Your task to perform on an android device: empty trash in google photos Image 0: 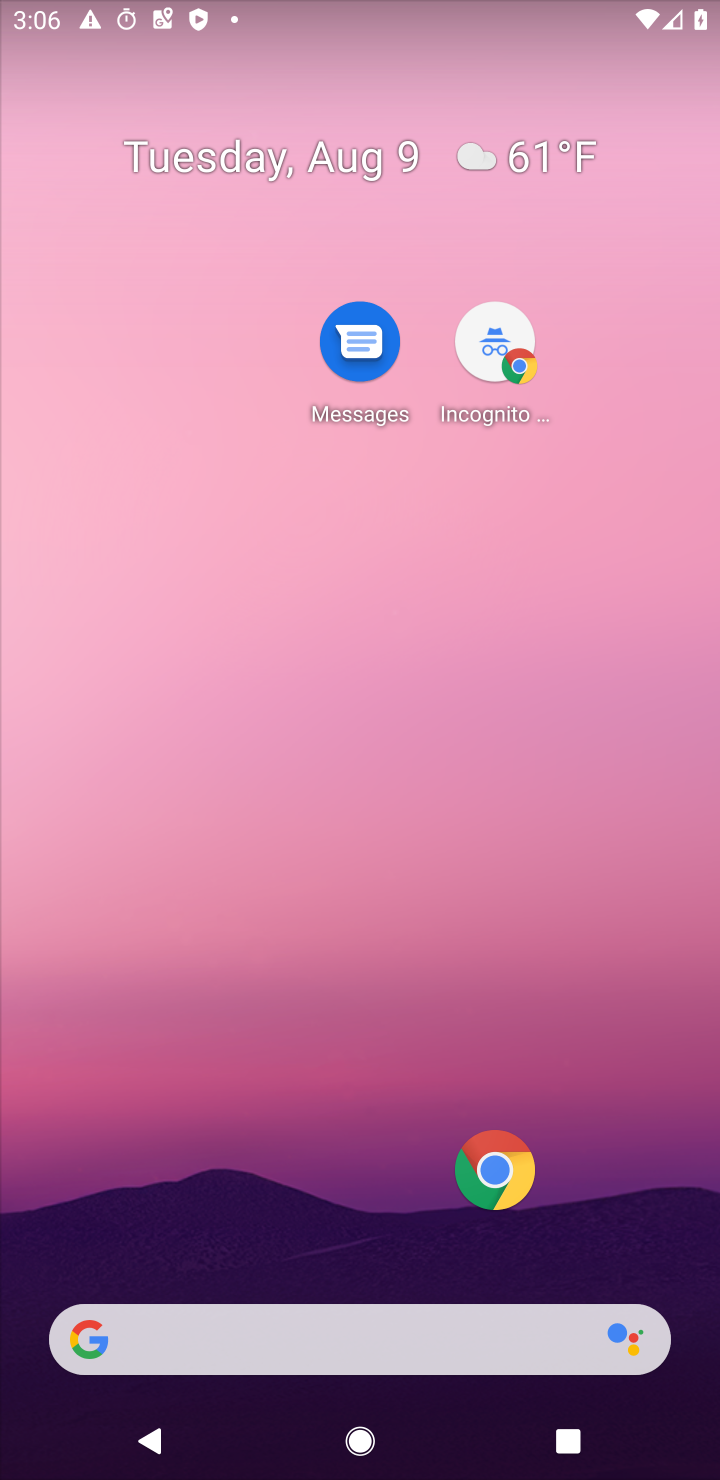
Step 0: drag from (262, 1146) to (698, 624)
Your task to perform on an android device: empty trash in google photos Image 1: 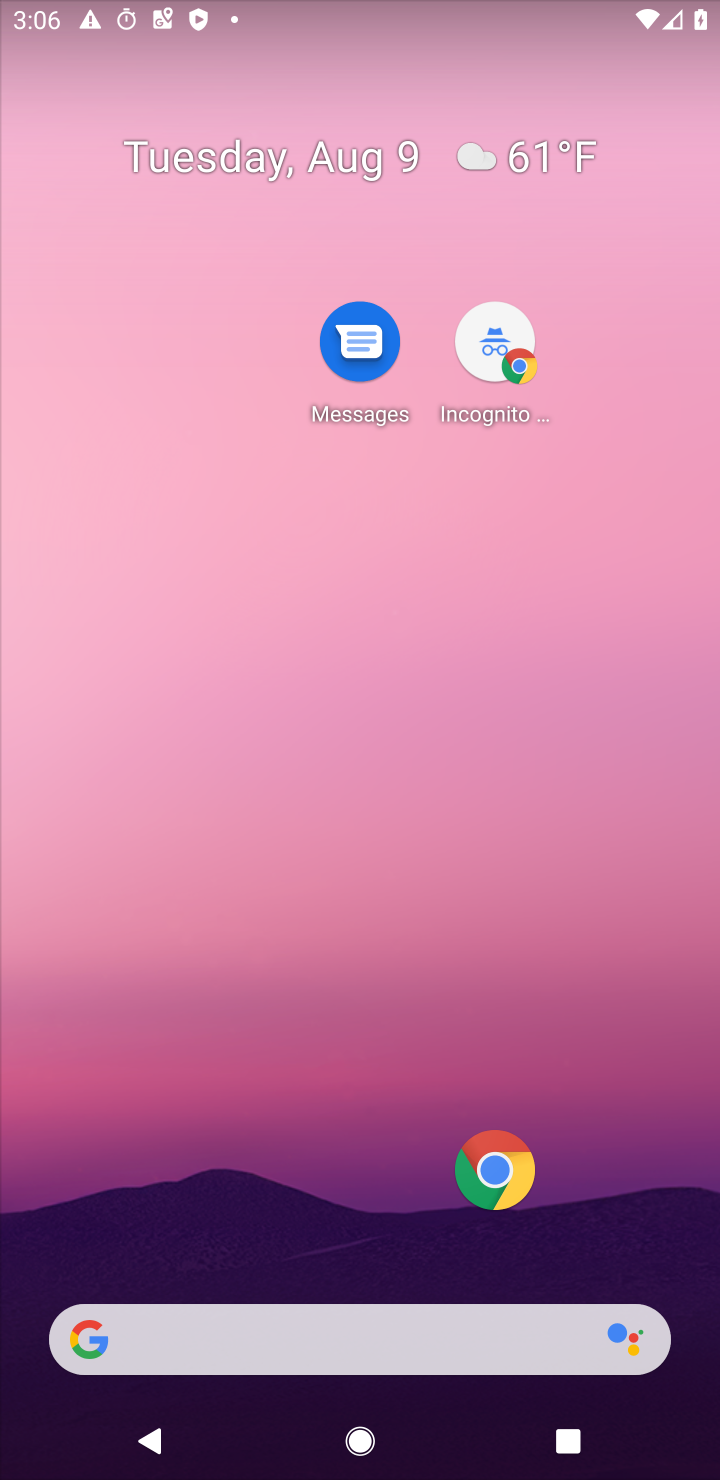
Step 1: drag from (351, 1023) to (646, 13)
Your task to perform on an android device: empty trash in google photos Image 2: 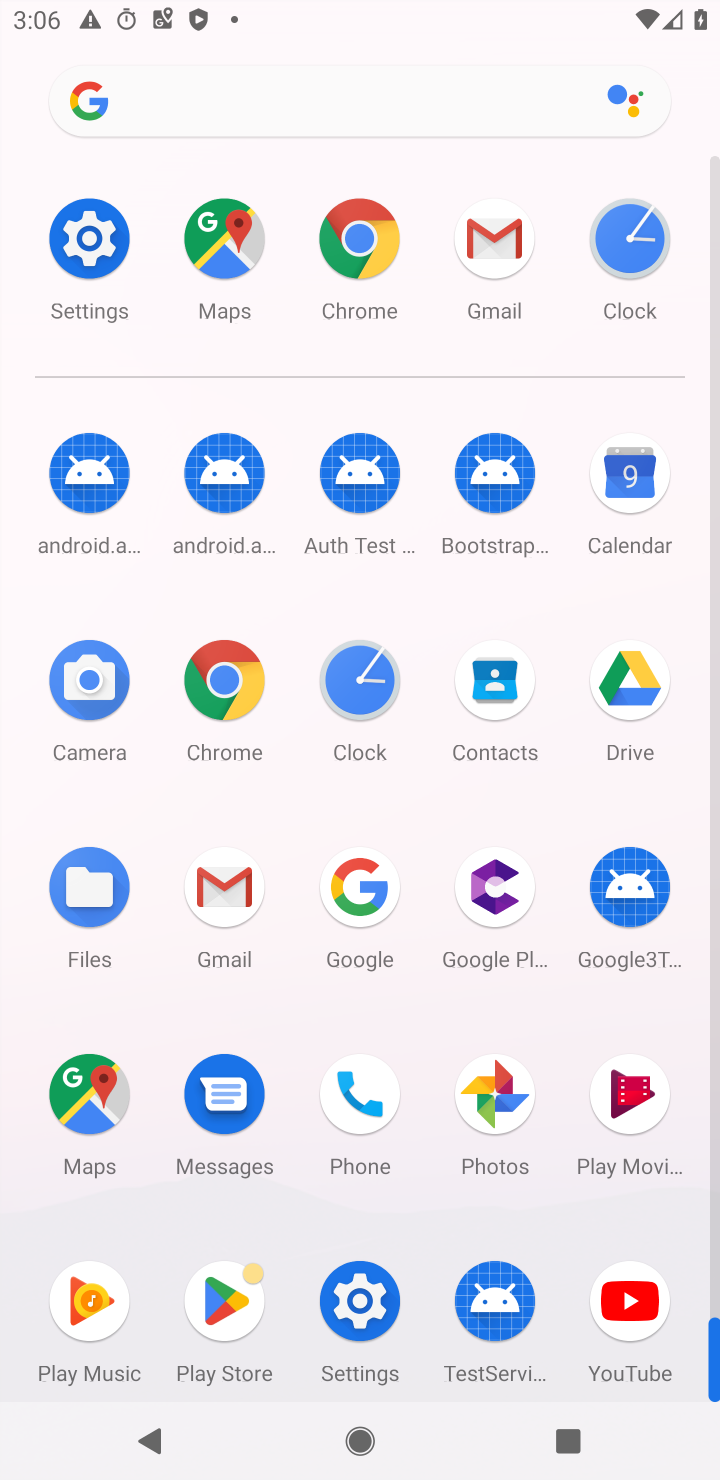
Step 2: click (497, 1117)
Your task to perform on an android device: empty trash in google photos Image 3: 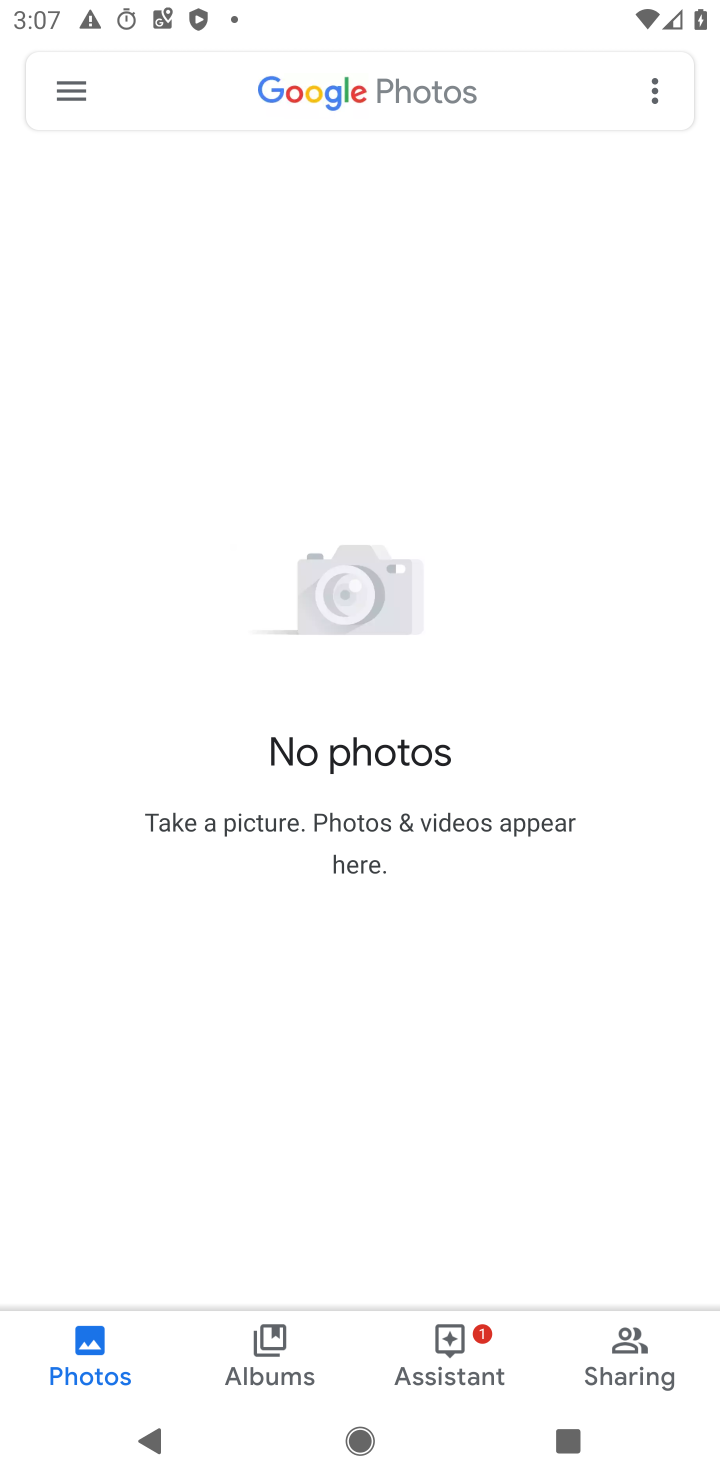
Step 3: click (68, 89)
Your task to perform on an android device: empty trash in google photos Image 4: 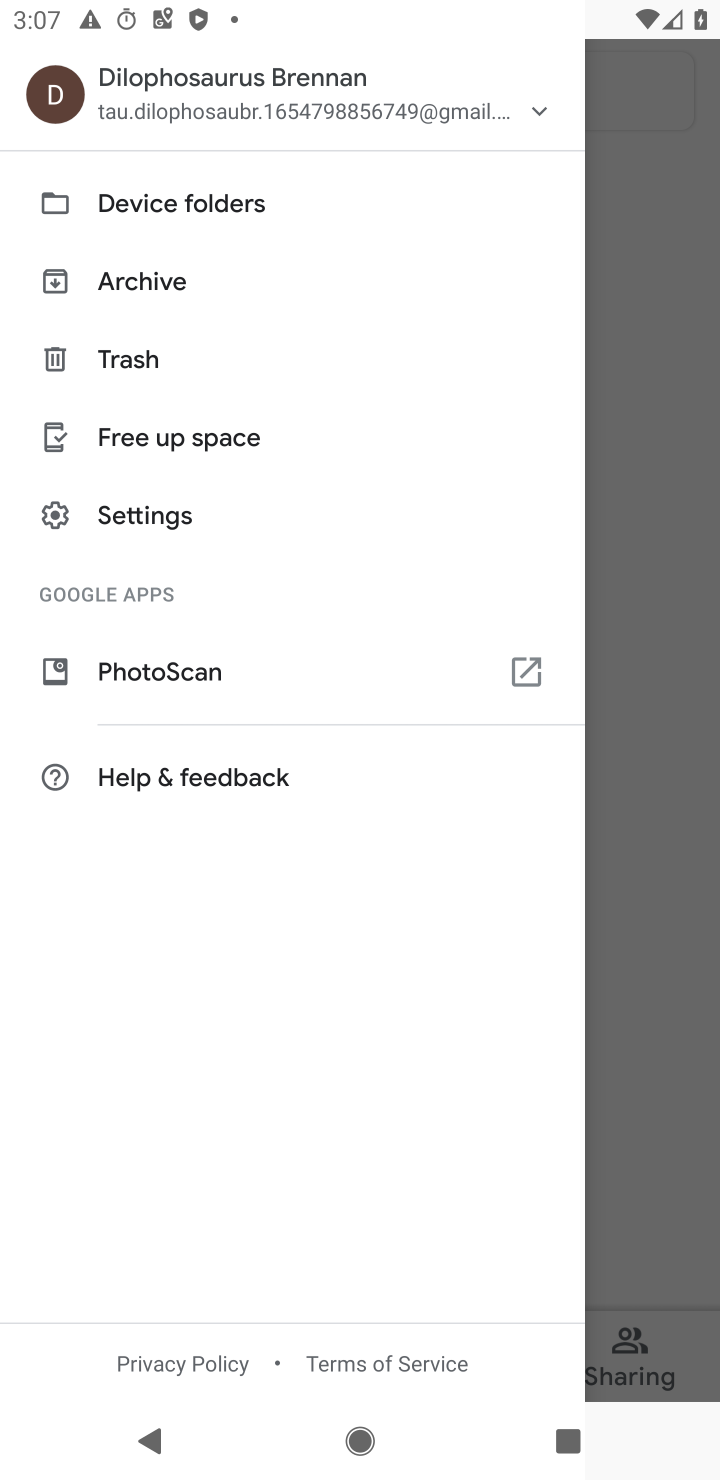
Step 4: click (143, 348)
Your task to perform on an android device: empty trash in google photos Image 5: 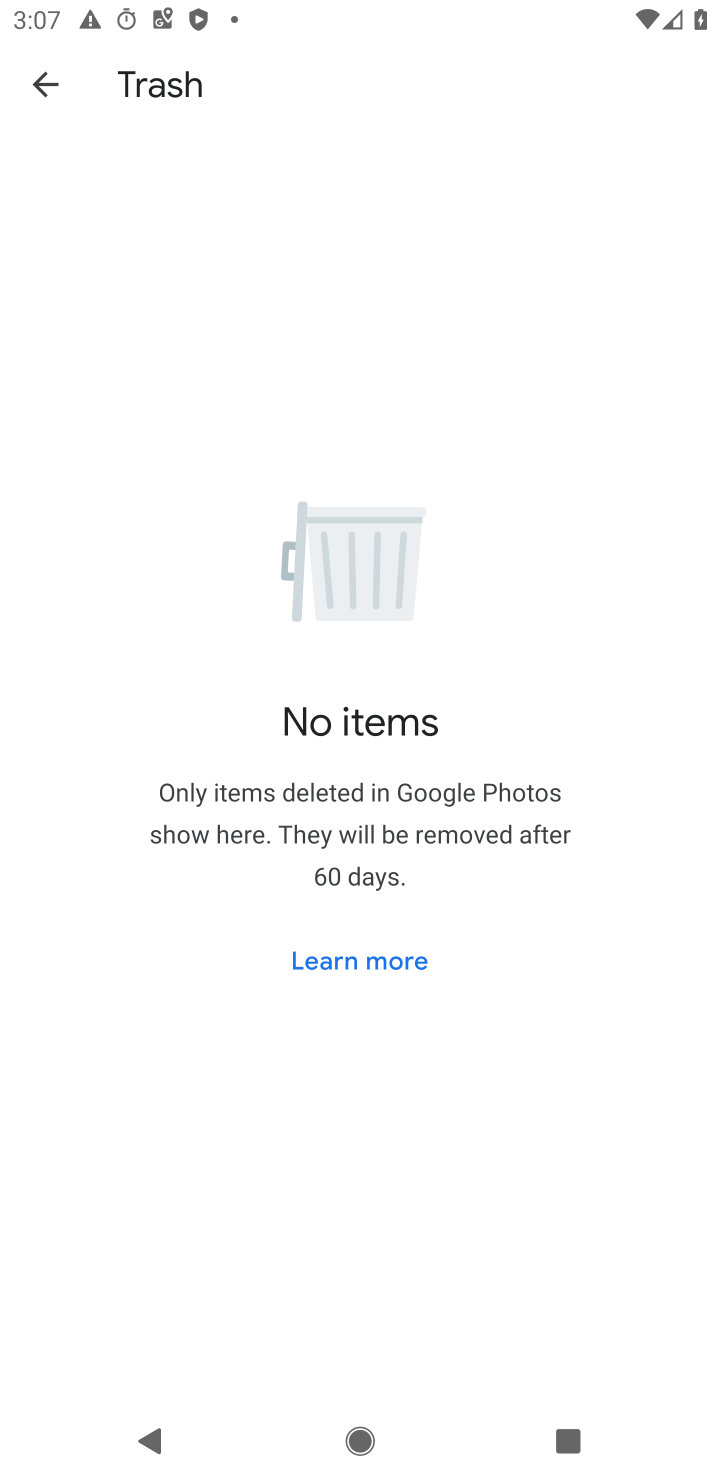
Step 5: task complete